Your task to perform on an android device: install app "Google Play services" Image 0: 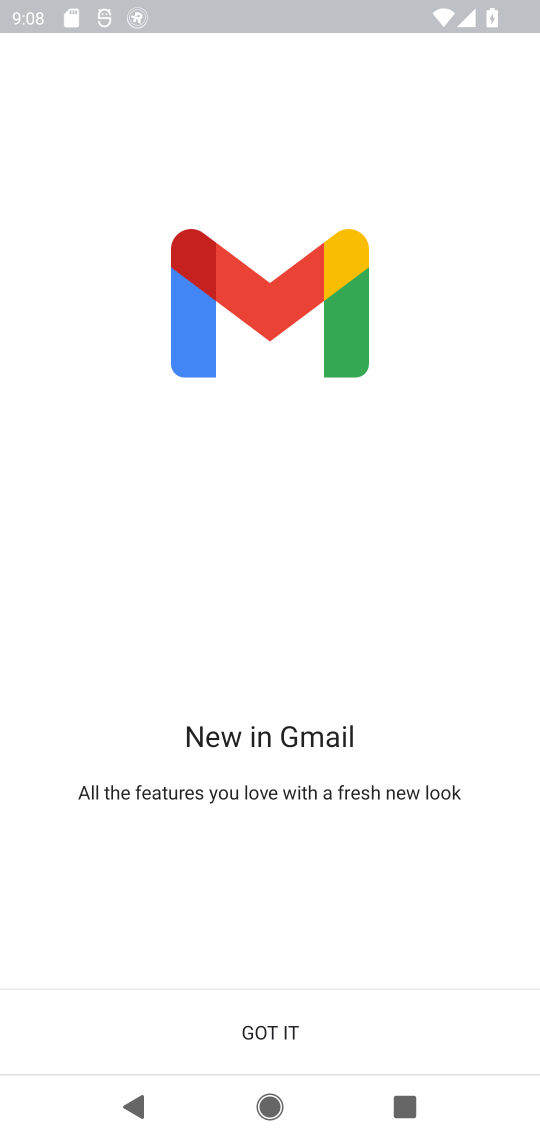
Step 0: press home button
Your task to perform on an android device: install app "Google Play services" Image 1: 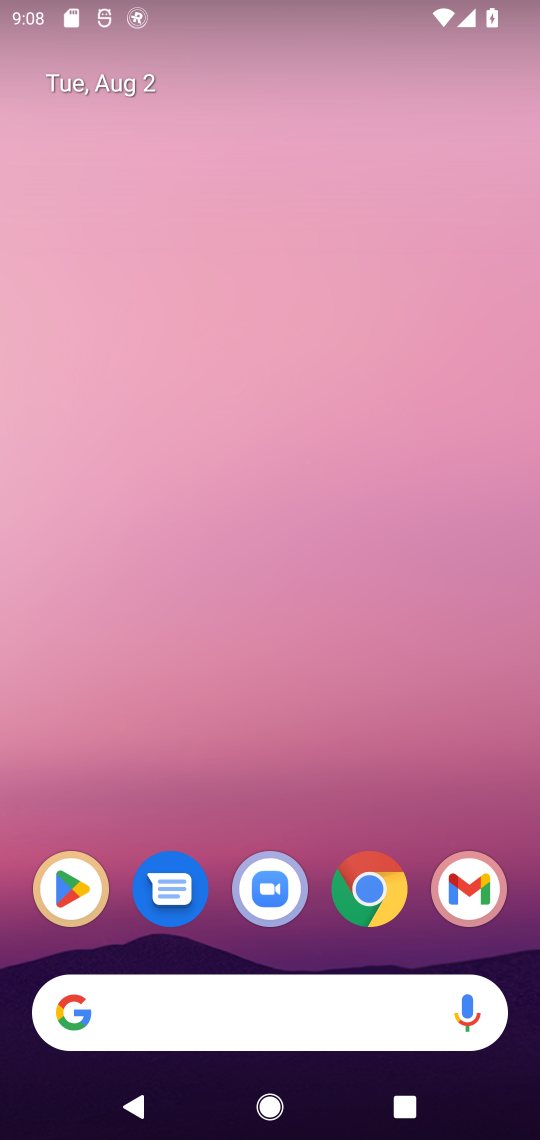
Step 1: click (83, 870)
Your task to perform on an android device: install app "Google Play services" Image 2: 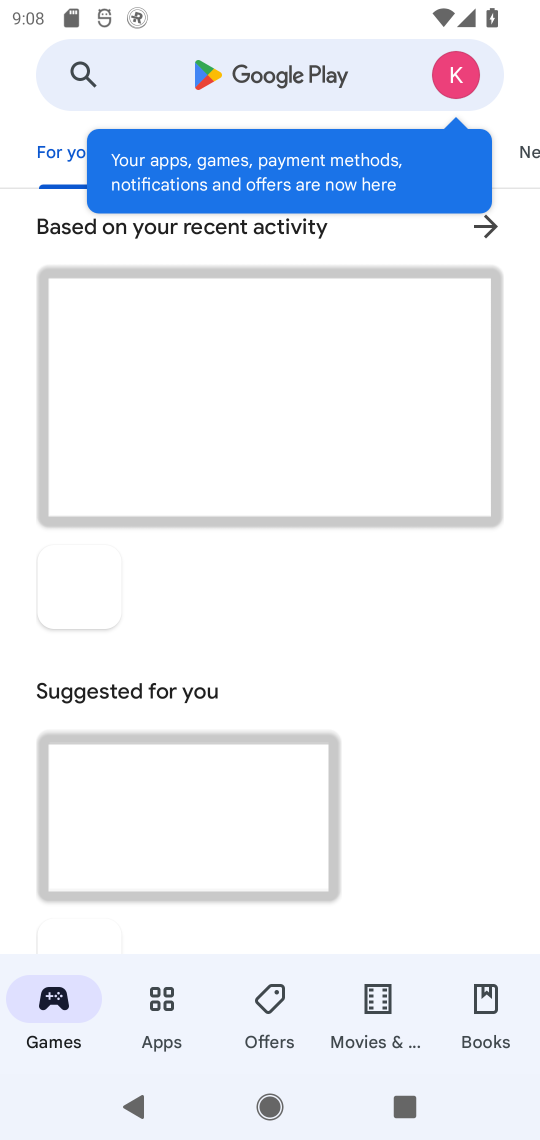
Step 2: click (251, 65)
Your task to perform on an android device: install app "Google Play services" Image 3: 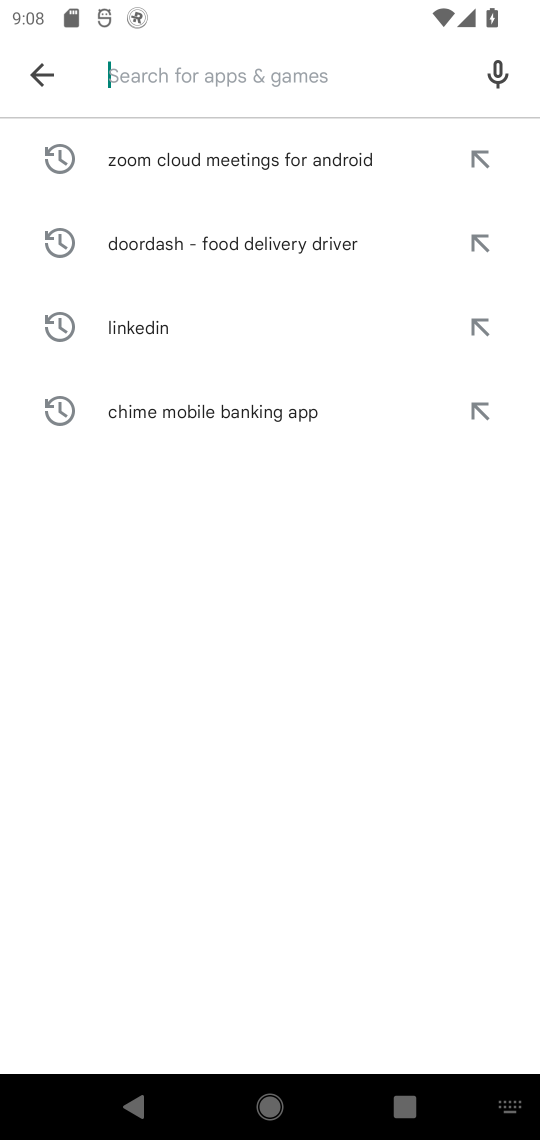
Step 3: type "Google Play services"
Your task to perform on an android device: install app "Google Play services" Image 4: 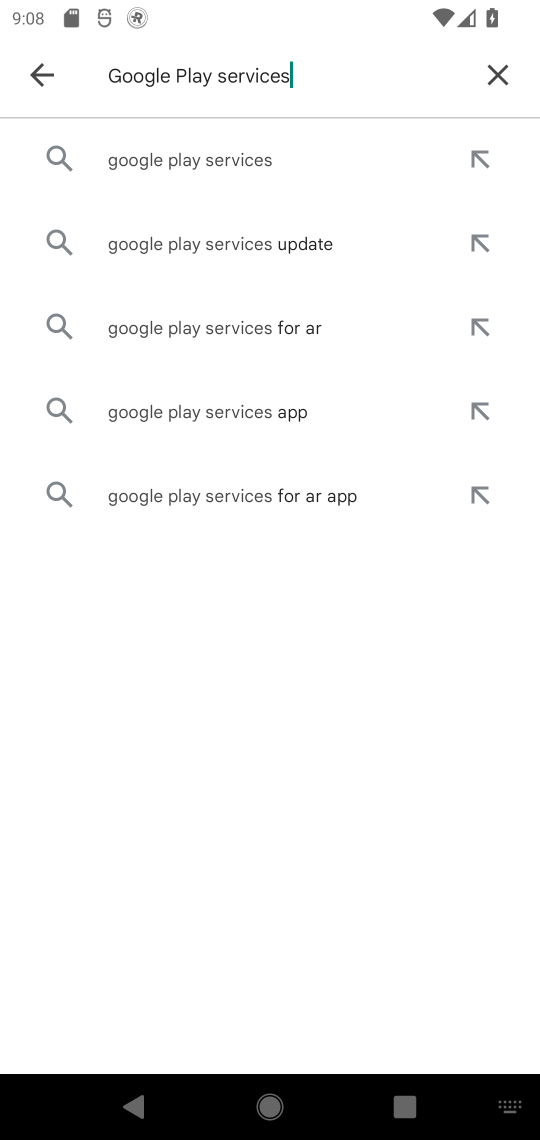
Step 4: click (201, 159)
Your task to perform on an android device: install app "Google Play services" Image 5: 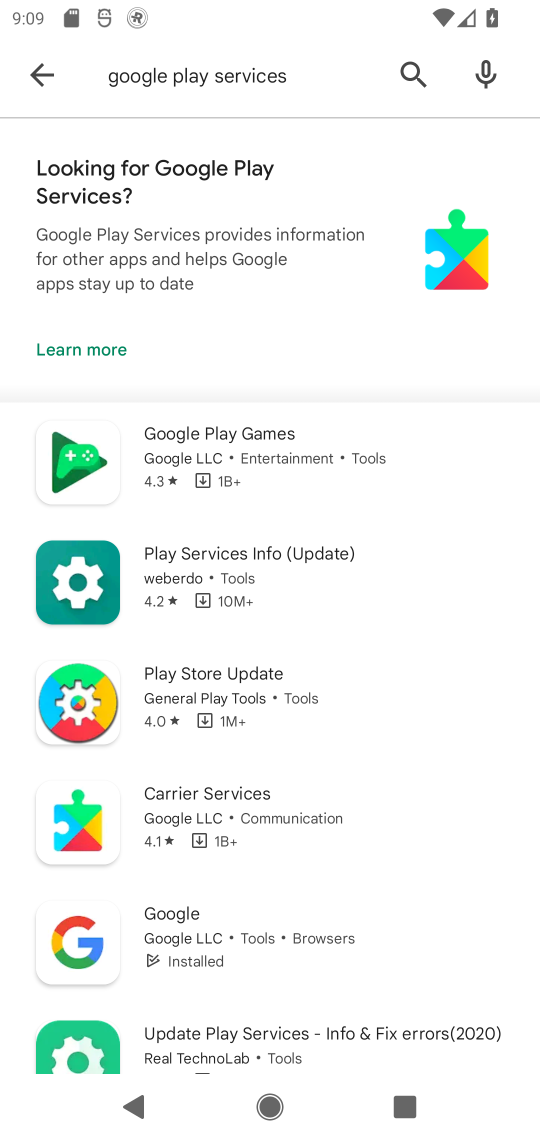
Step 5: task complete